Your task to perform on an android device: Open Wikipedia Image 0: 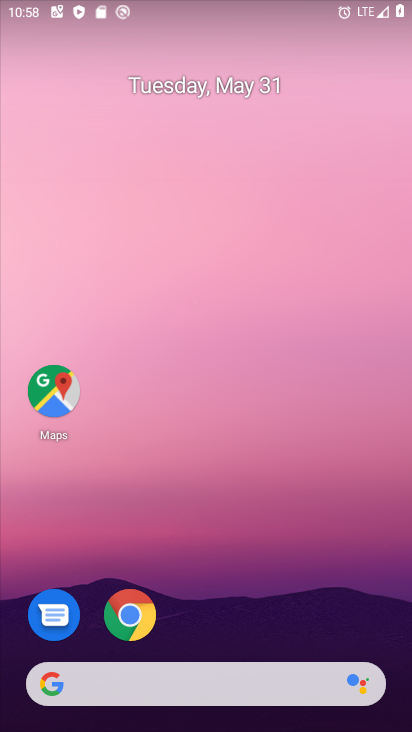
Step 0: drag from (317, 658) to (329, 84)
Your task to perform on an android device: Open Wikipedia Image 1: 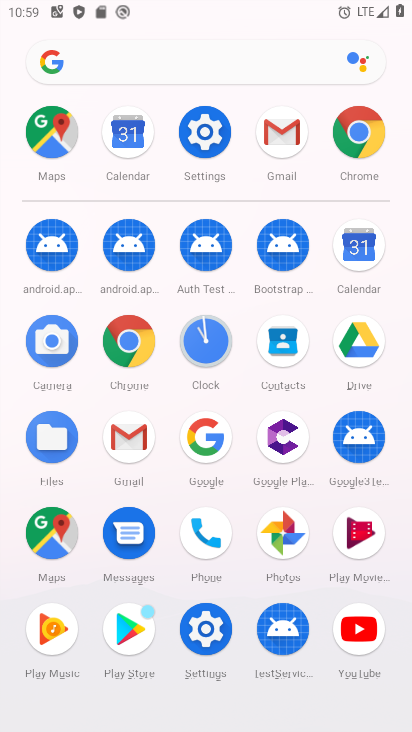
Step 1: click (345, 126)
Your task to perform on an android device: Open Wikipedia Image 2: 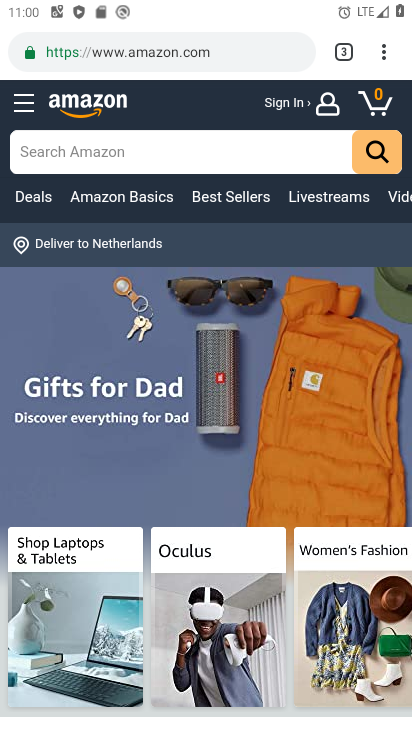
Step 2: click (143, 50)
Your task to perform on an android device: Open Wikipedia Image 3: 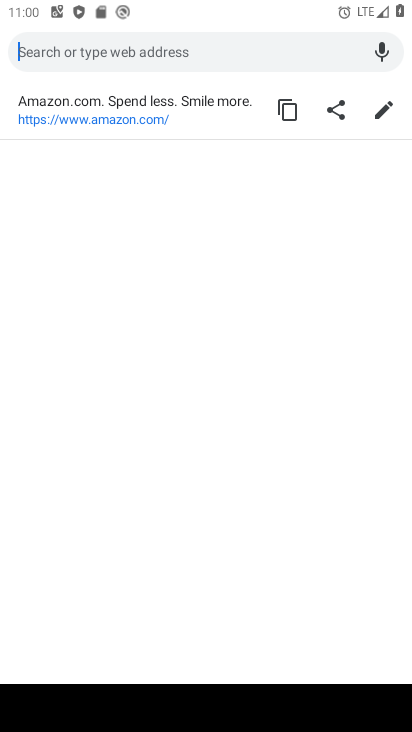
Step 3: type "wikipedia"
Your task to perform on an android device: Open Wikipedia Image 4: 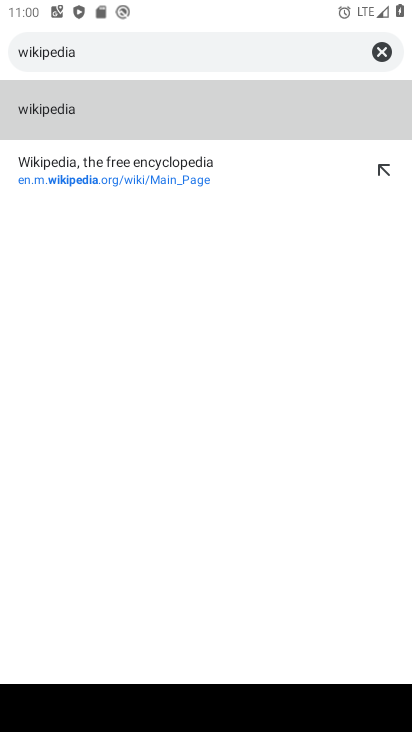
Step 4: click (45, 127)
Your task to perform on an android device: Open Wikipedia Image 5: 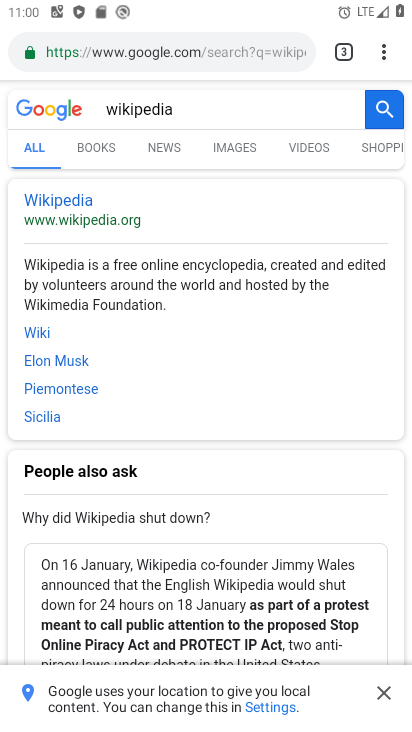
Step 5: click (81, 206)
Your task to perform on an android device: Open Wikipedia Image 6: 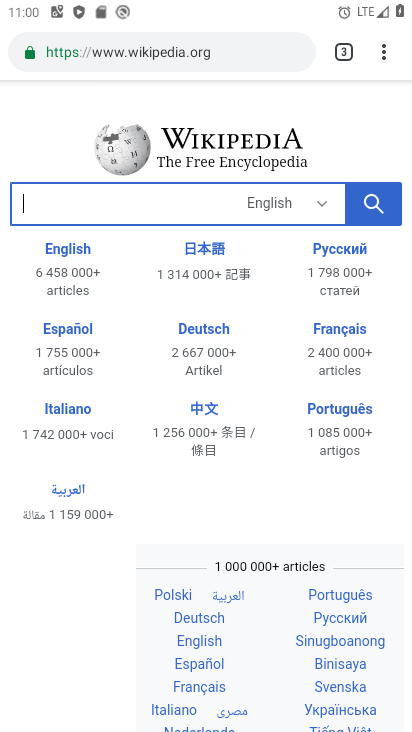
Step 6: task complete